Your task to perform on an android device: Open the calendar app, open the side menu, and click the "Day" option Image 0: 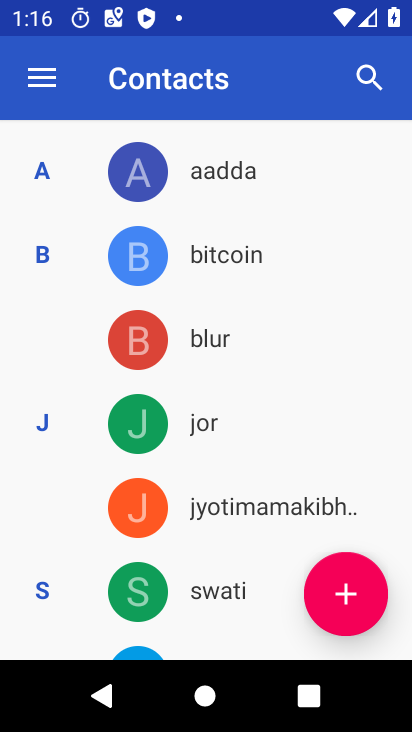
Step 0: press home button
Your task to perform on an android device: Open the calendar app, open the side menu, and click the "Day" option Image 1: 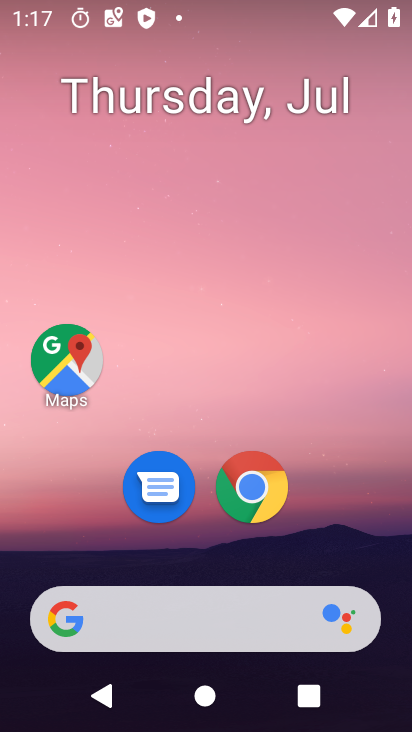
Step 1: drag from (238, 664) to (297, 155)
Your task to perform on an android device: Open the calendar app, open the side menu, and click the "Day" option Image 2: 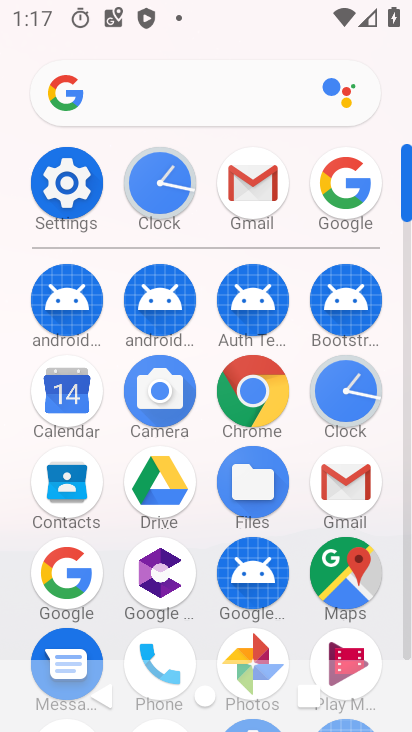
Step 2: click (79, 402)
Your task to perform on an android device: Open the calendar app, open the side menu, and click the "Day" option Image 3: 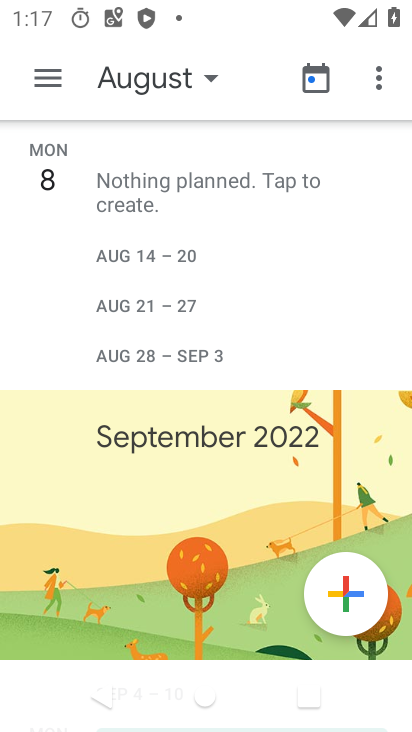
Step 3: click (36, 87)
Your task to perform on an android device: Open the calendar app, open the side menu, and click the "Day" option Image 4: 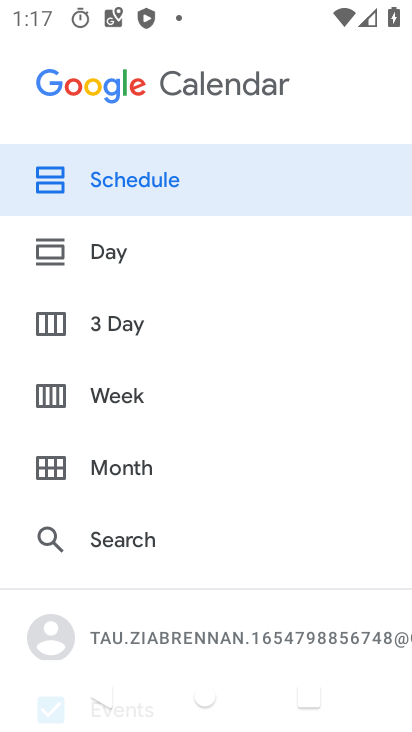
Step 4: click (67, 263)
Your task to perform on an android device: Open the calendar app, open the side menu, and click the "Day" option Image 5: 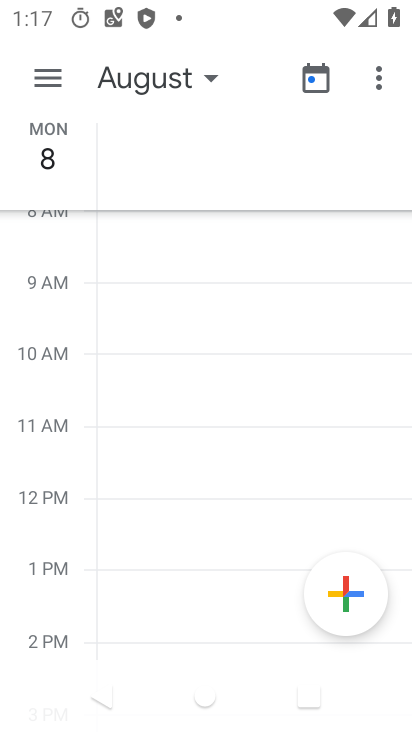
Step 5: click (54, 82)
Your task to perform on an android device: Open the calendar app, open the side menu, and click the "Day" option Image 6: 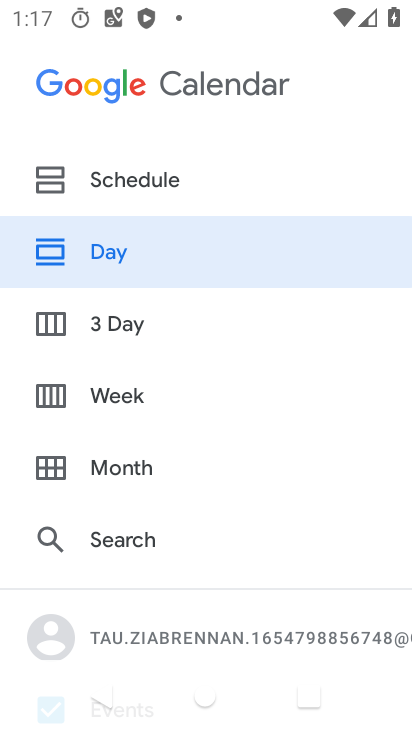
Step 6: task complete